Your task to perform on an android device: open device folders in google photos Image 0: 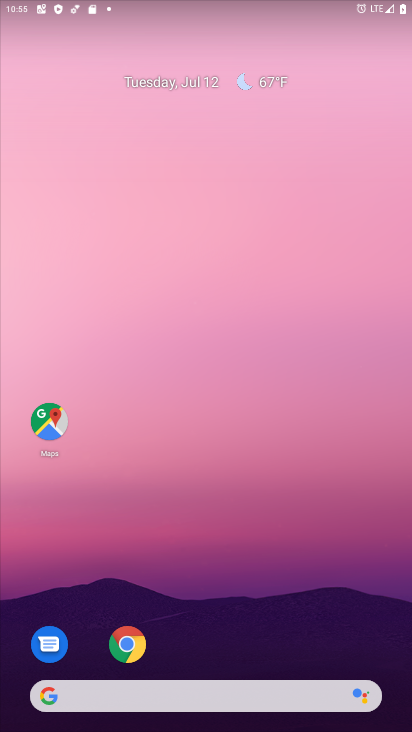
Step 0: drag from (306, 565) to (378, 85)
Your task to perform on an android device: open device folders in google photos Image 1: 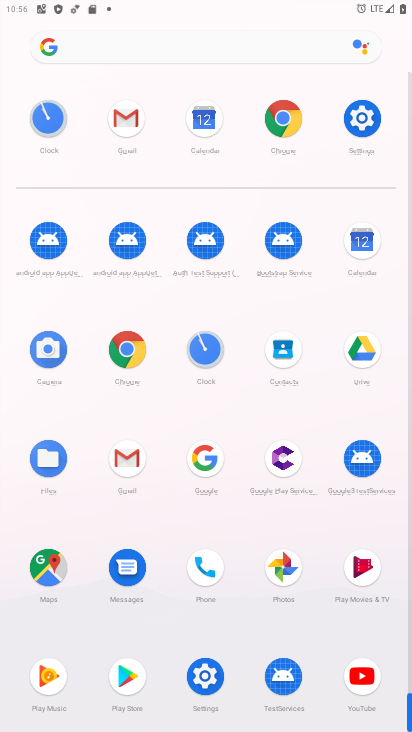
Step 1: click (284, 570)
Your task to perform on an android device: open device folders in google photos Image 2: 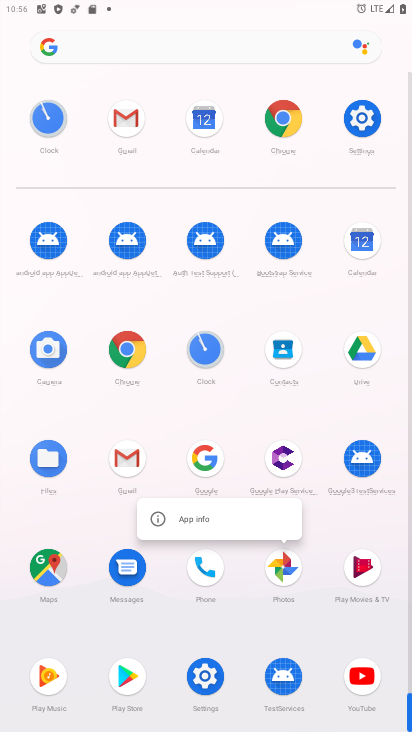
Step 2: click (209, 522)
Your task to perform on an android device: open device folders in google photos Image 3: 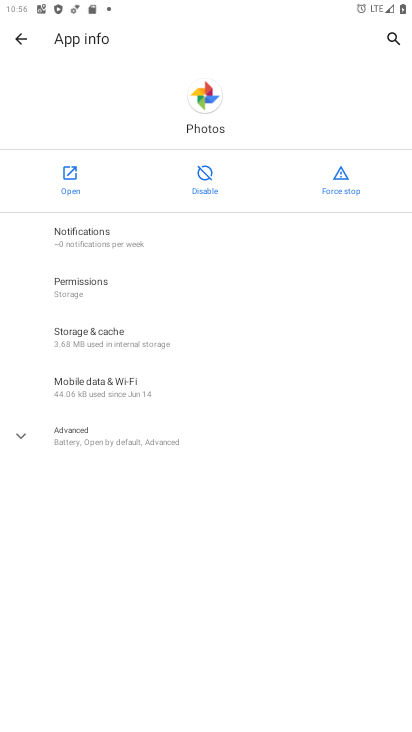
Step 3: click (56, 179)
Your task to perform on an android device: open device folders in google photos Image 4: 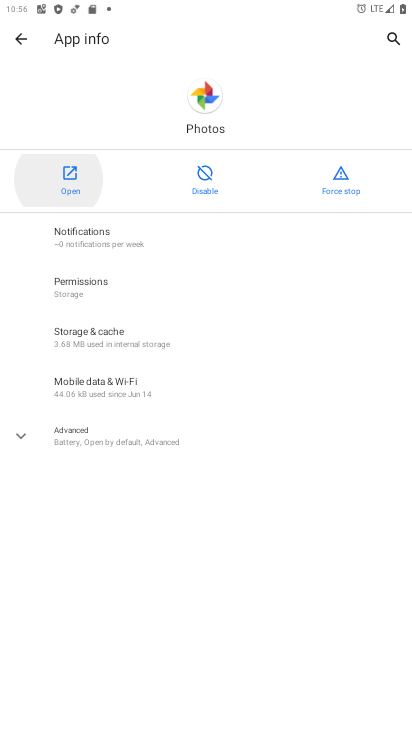
Step 4: click (57, 179)
Your task to perform on an android device: open device folders in google photos Image 5: 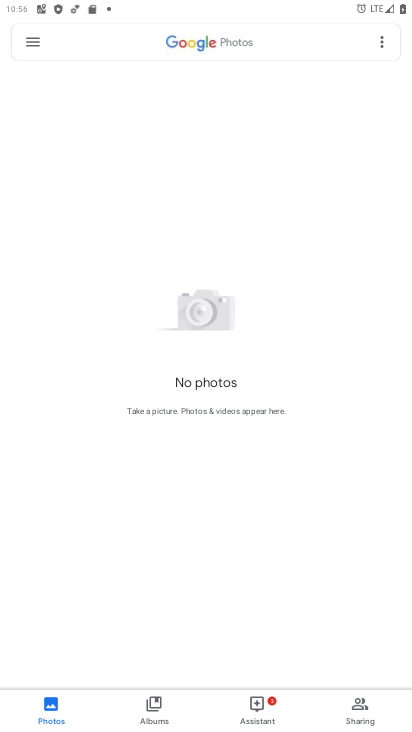
Step 5: click (31, 51)
Your task to perform on an android device: open device folders in google photos Image 6: 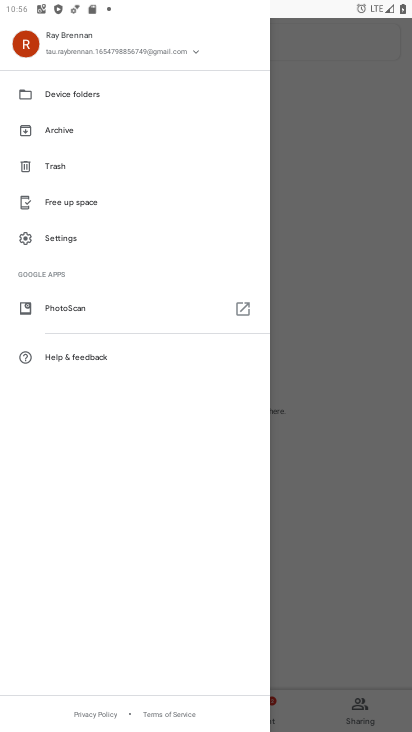
Step 6: click (83, 100)
Your task to perform on an android device: open device folders in google photos Image 7: 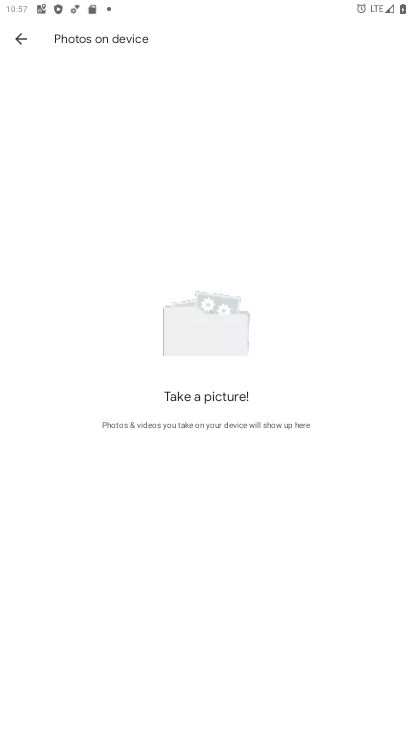
Step 7: drag from (190, 491) to (252, 317)
Your task to perform on an android device: open device folders in google photos Image 8: 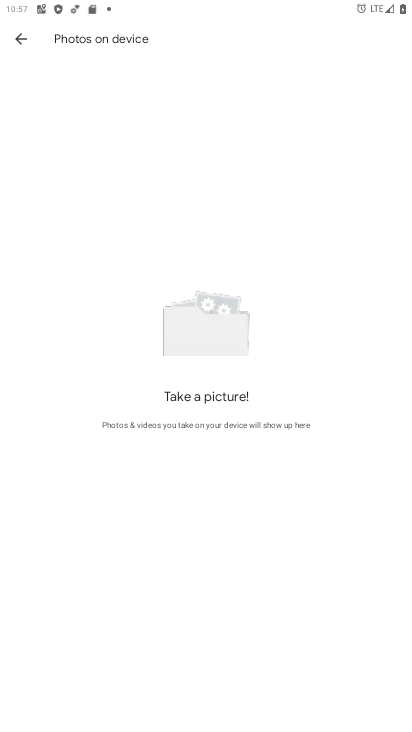
Step 8: click (29, 37)
Your task to perform on an android device: open device folders in google photos Image 9: 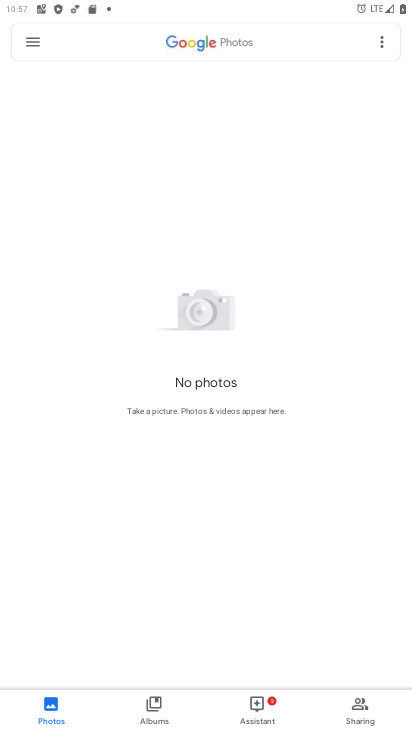
Step 9: drag from (239, 437) to (267, 253)
Your task to perform on an android device: open device folders in google photos Image 10: 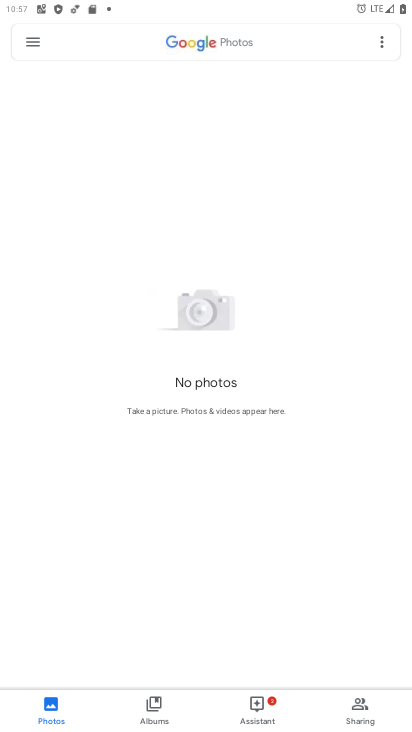
Step 10: click (37, 35)
Your task to perform on an android device: open device folders in google photos Image 11: 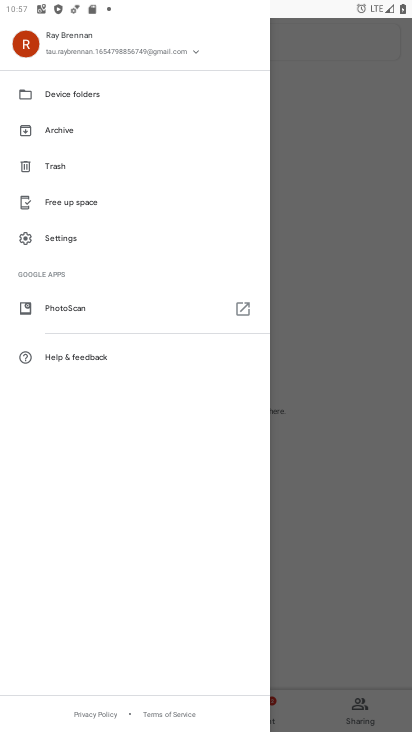
Step 11: click (68, 81)
Your task to perform on an android device: open device folders in google photos Image 12: 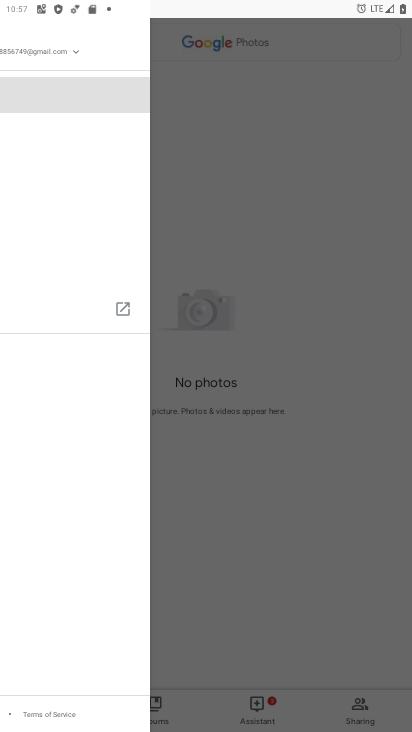
Step 12: click (91, 89)
Your task to perform on an android device: open device folders in google photos Image 13: 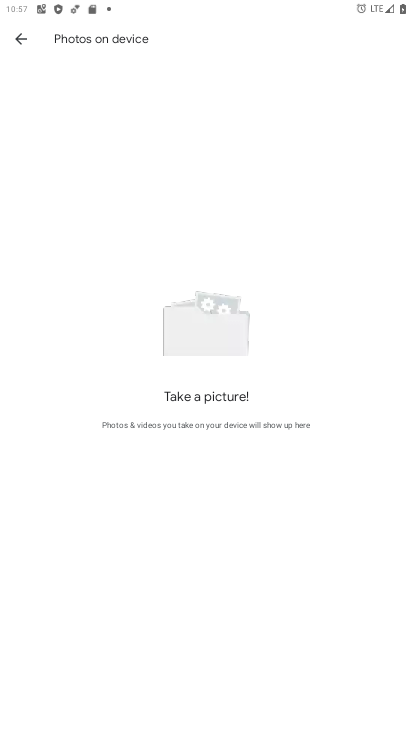
Step 13: task complete